Your task to perform on an android device: Play the last video I watched on Youtube Image 0: 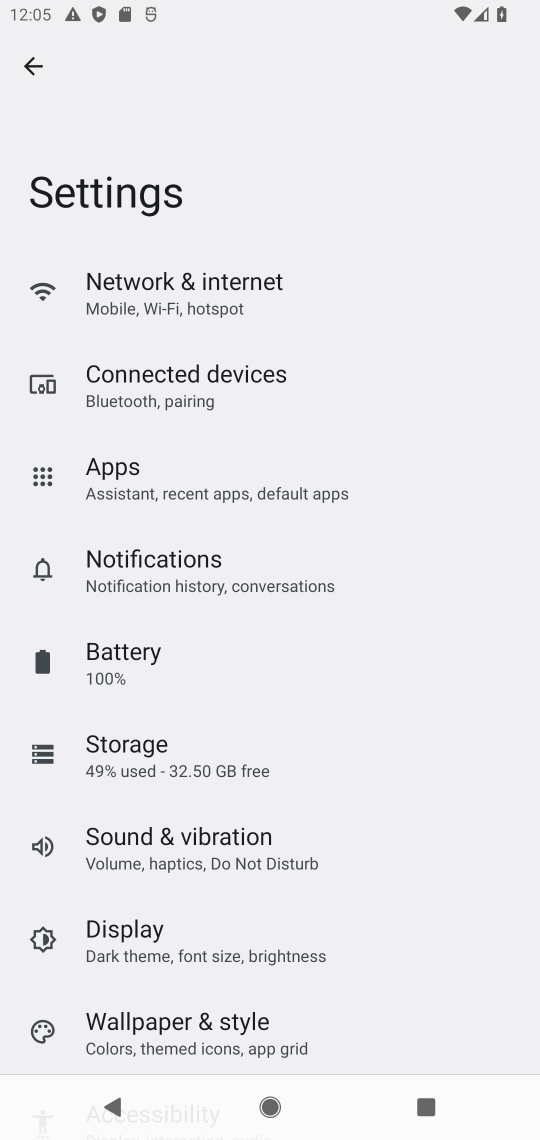
Step 0: drag from (282, 1004) to (287, 615)
Your task to perform on an android device: Play the last video I watched on Youtube Image 1: 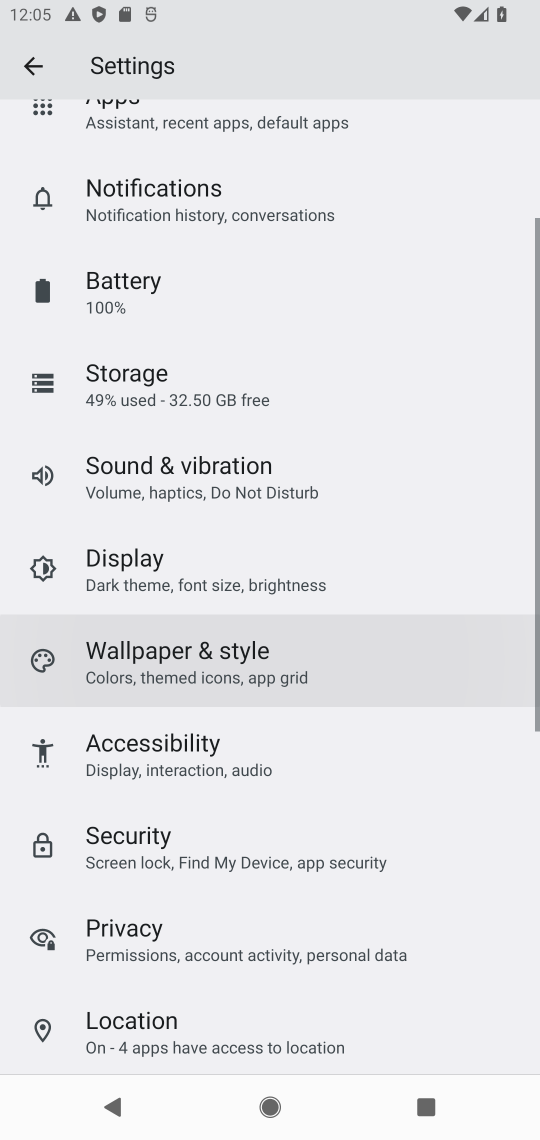
Step 1: drag from (279, 540) to (159, 1136)
Your task to perform on an android device: Play the last video I watched on Youtube Image 2: 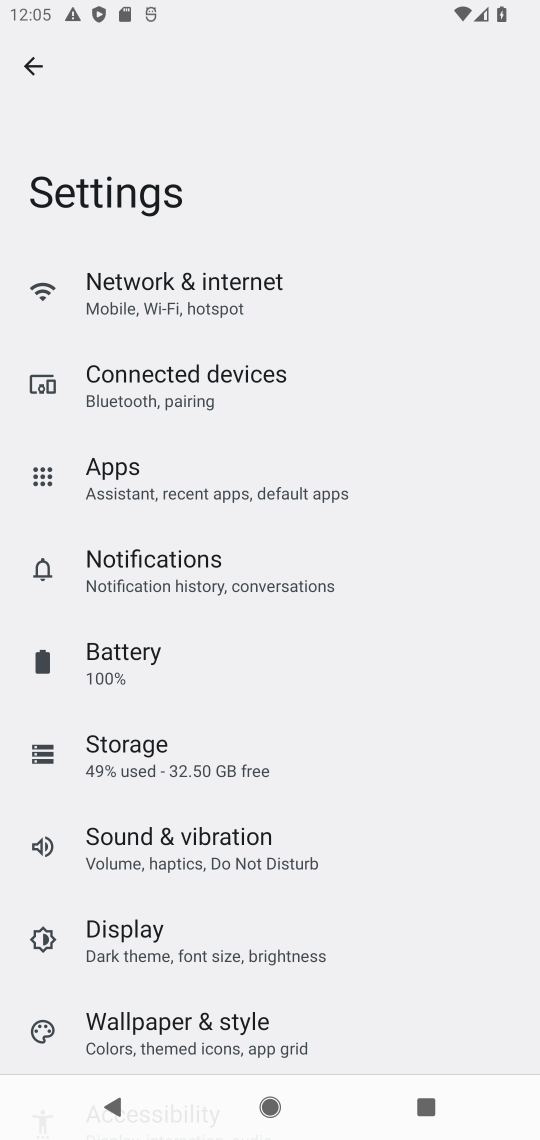
Step 2: drag from (261, 1000) to (302, 741)
Your task to perform on an android device: Play the last video I watched on Youtube Image 3: 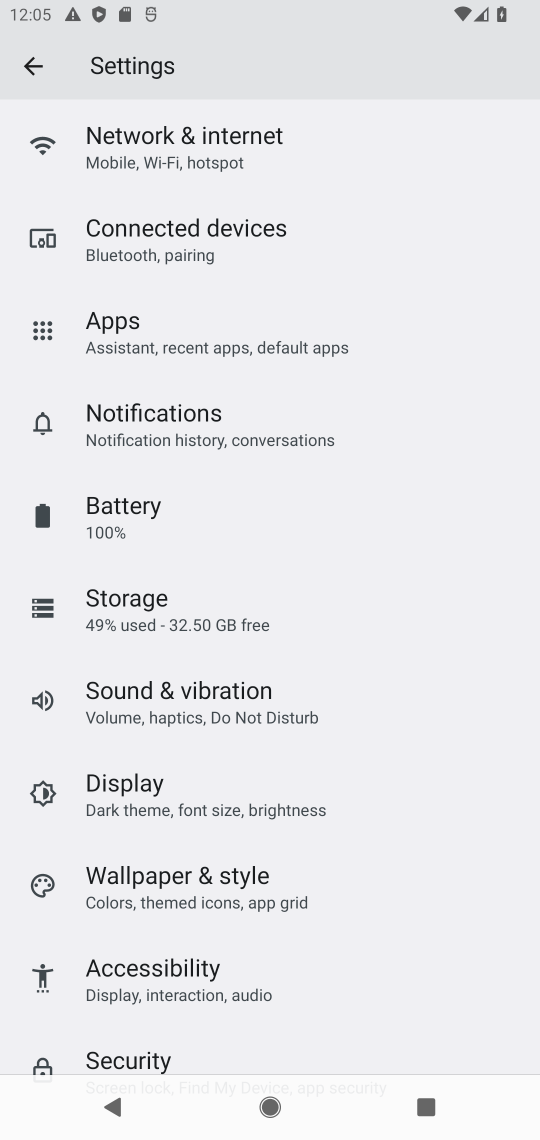
Step 3: drag from (250, 862) to (318, 623)
Your task to perform on an android device: Play the last video I watched on Youtube Image 4: 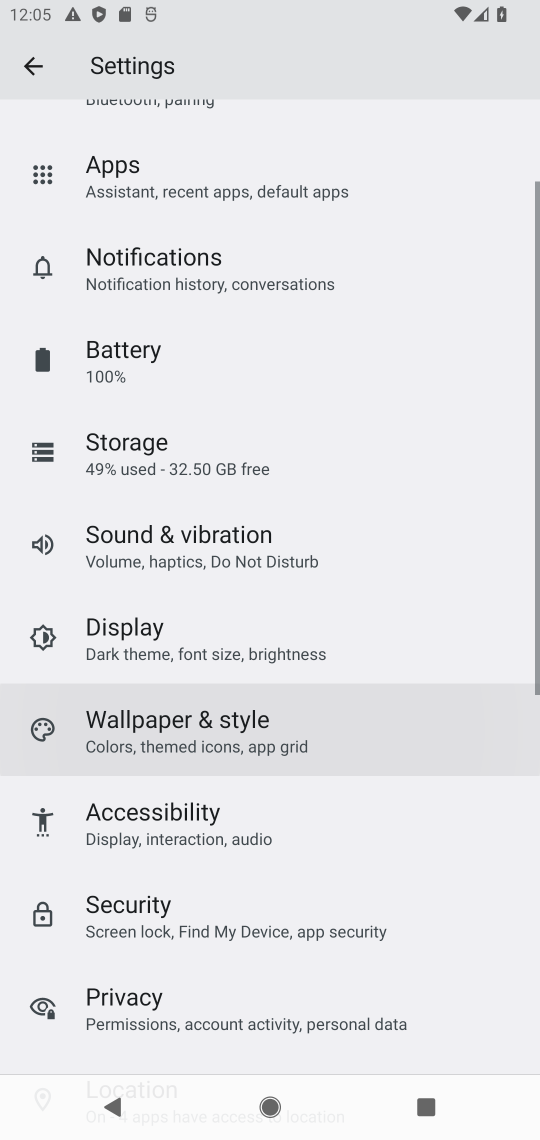
Step 4: drag from (297, 558) to (474, 689)
Your task to perform on an android device: Play the last video I watched on Youtube Image 5: 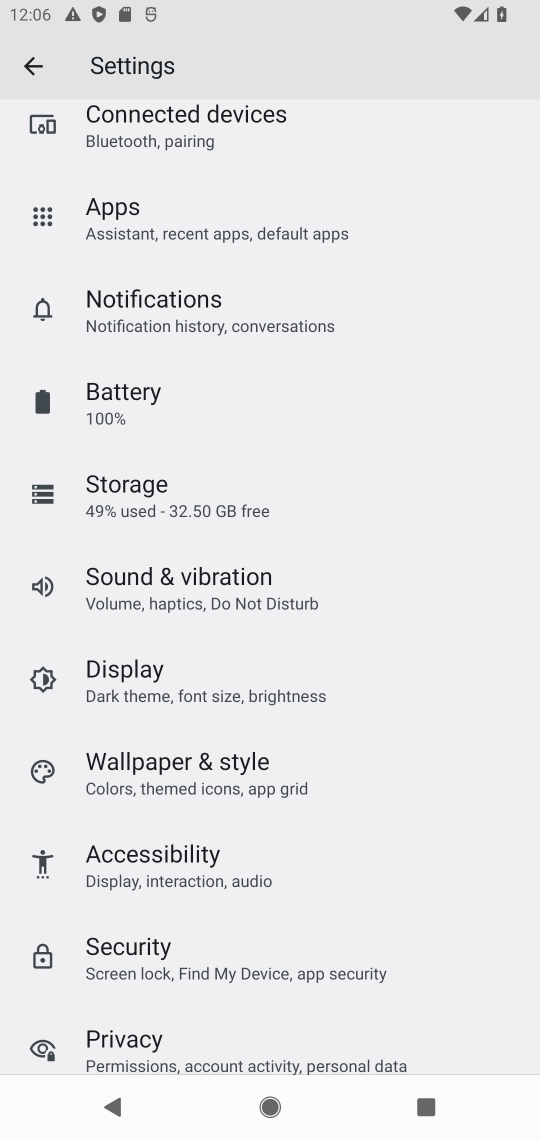
Step 5: press home button
Your task to perform on an android device: Play the last video I watched on Youtube Image 6: 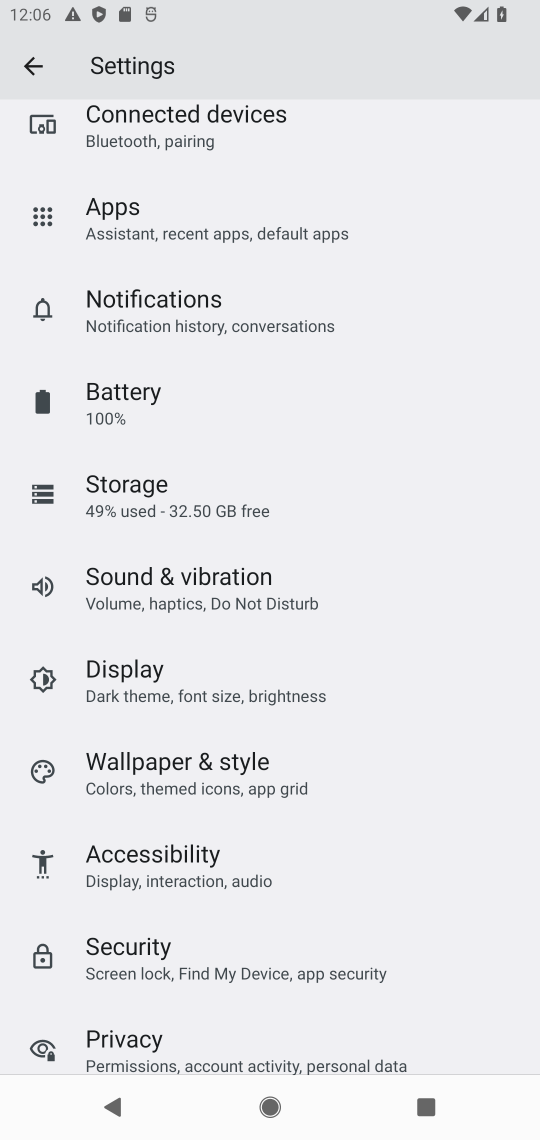
Step 6: press home button
Your task to perform on an android device: Play the last video I watched on Youtube Image 7: 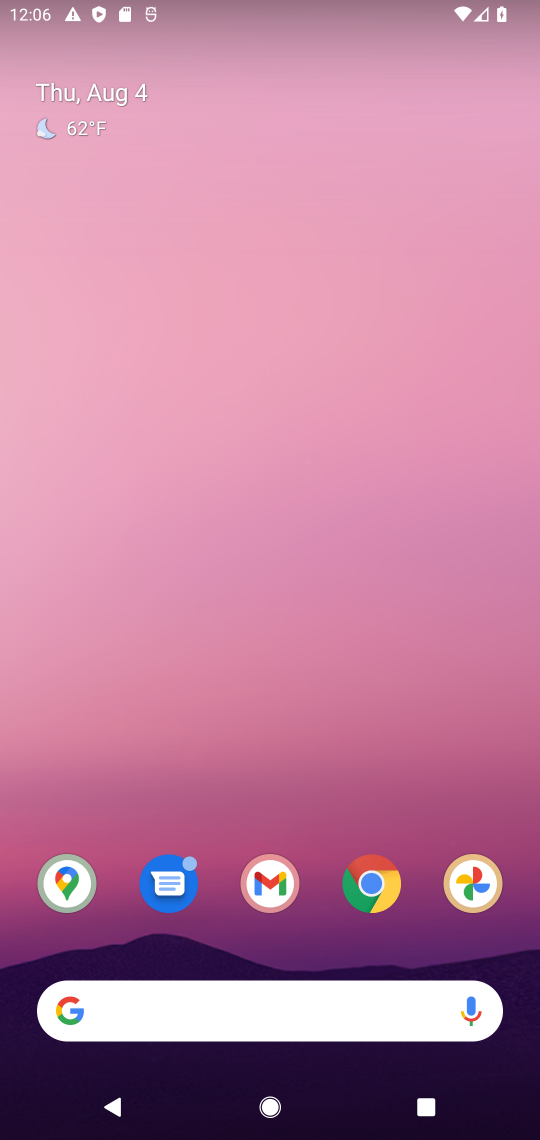
Step 7: drag from (352, 910) to (381, 518)
Your task to perform on an android device: Play the last video I watched on Youtube Image 8: 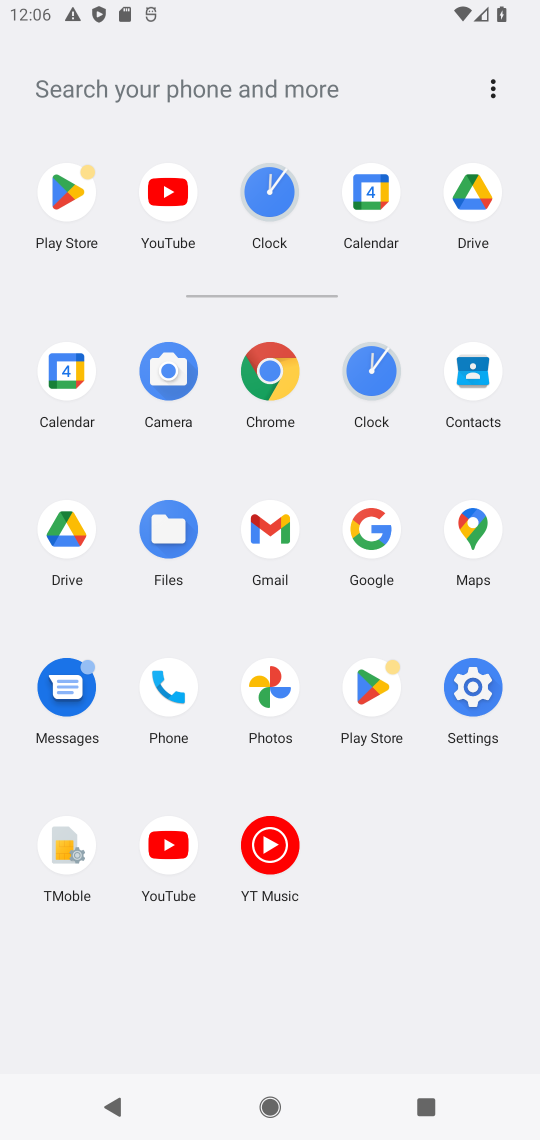
Step 8: click (193, 192)
Your task to perform on an android device: Play the last video I watched on Youtube Image 9: 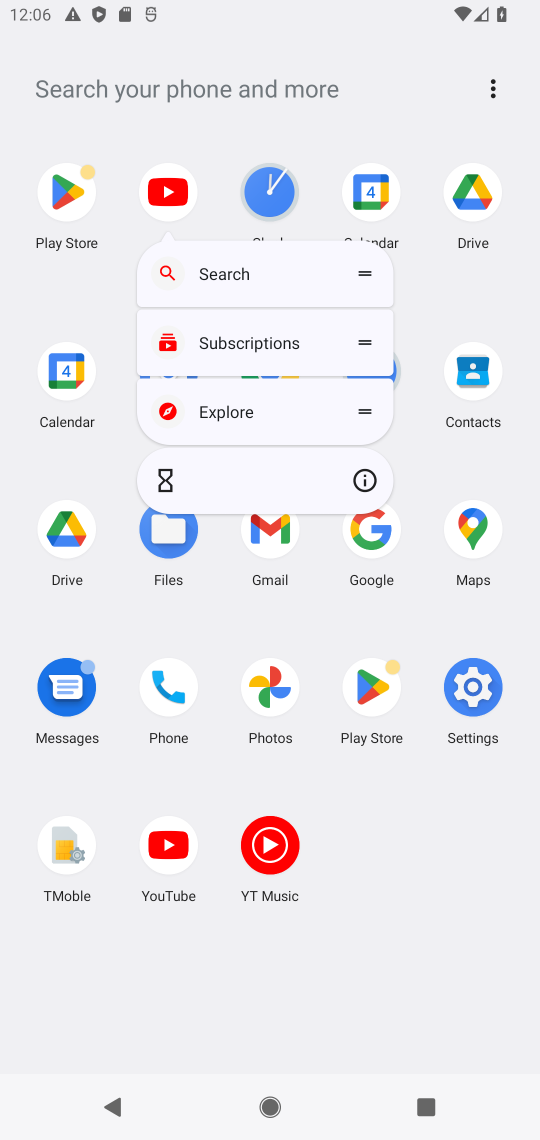
Step 9: click (371, 483)
Your task to perform on an android device: Play the last video I watched on Youtube Image 10: 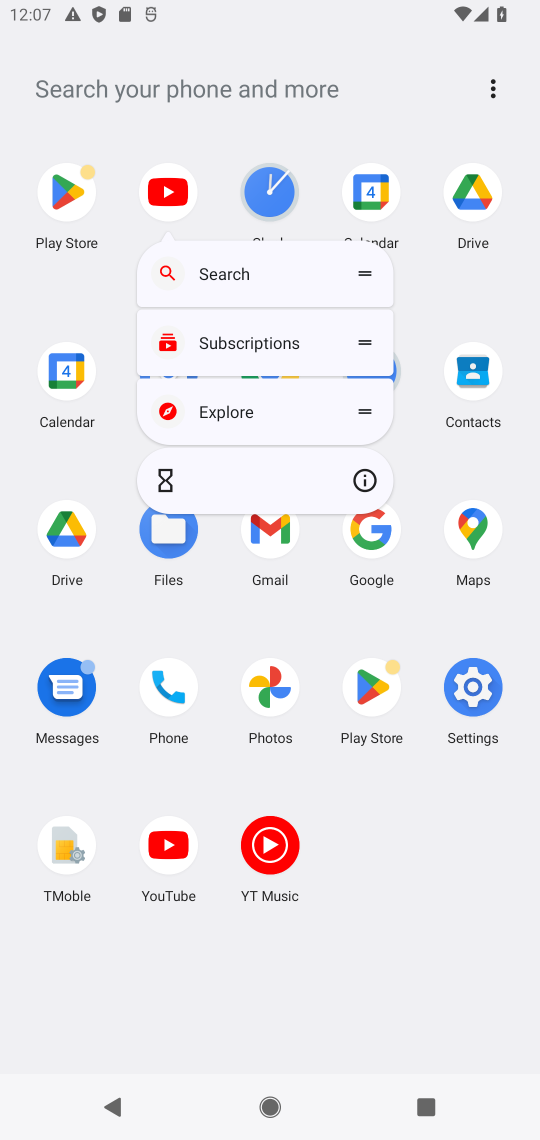
Step 10: click (377, 476)
Your task to perform on an android device: Play the last video I watched on Youtube Image 11: 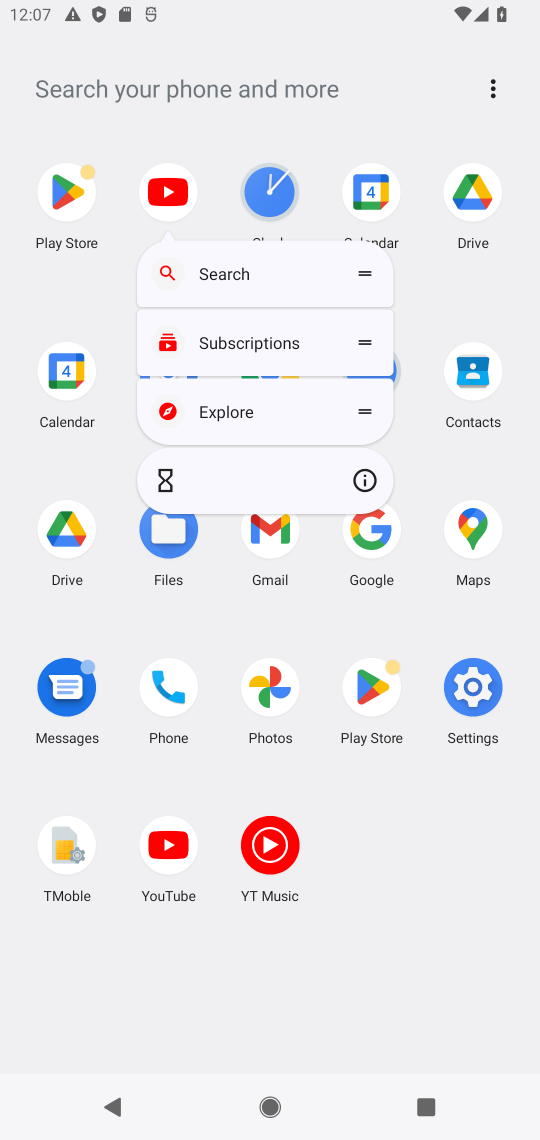
Step 11: click (365, 483)
Your task to perform on an android device: Play the last video I watched on Youtube Image 12: 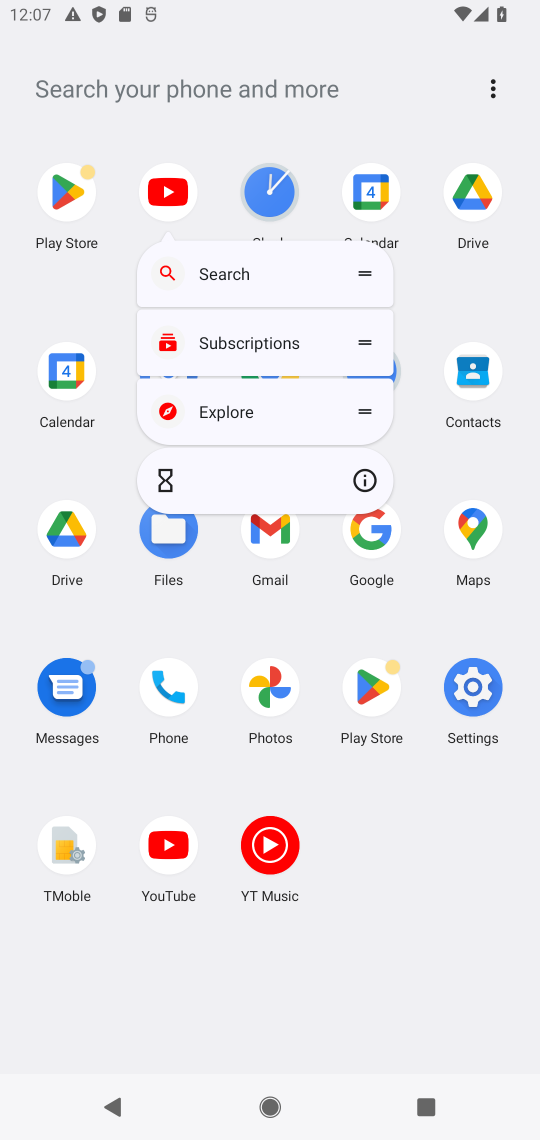
Step 12: click (371, 484)
Your task to perform on an android device: Play the last video I watched on Youtube Image 13: 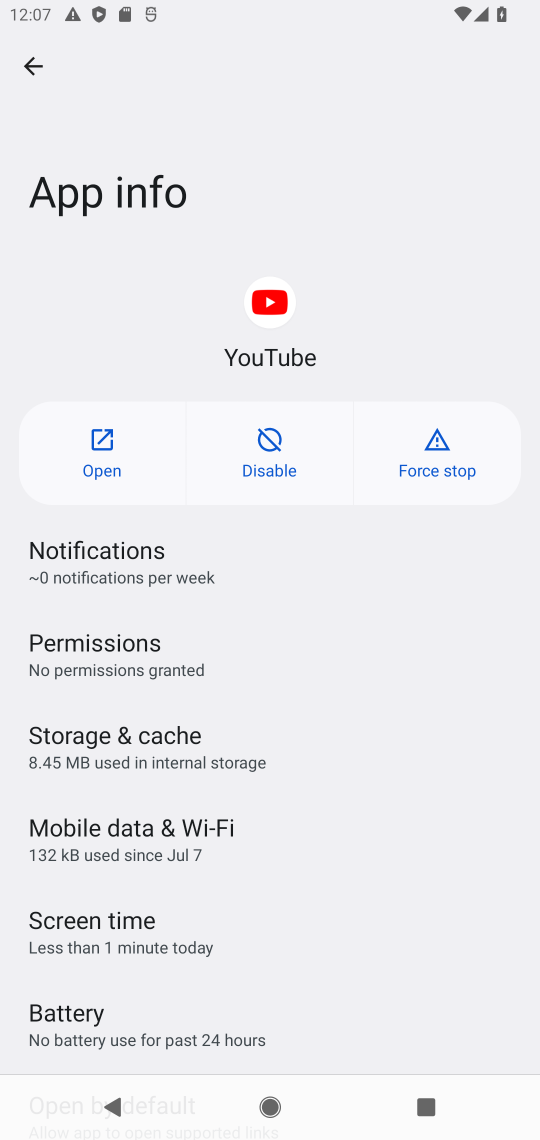
Step 13: click (93, 445)
Your task to perform on an android device: Play the last video I watched on Youtube Image 14: 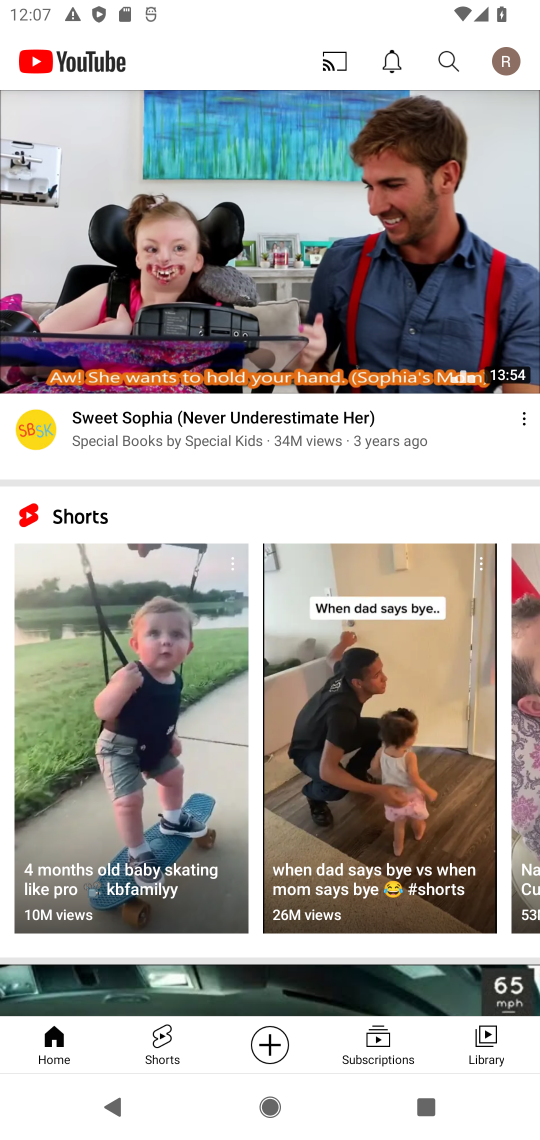
Step 14: click (512, 1048)
Your task to perform on an android device: Play the last video I watched on Youtube Image 15: 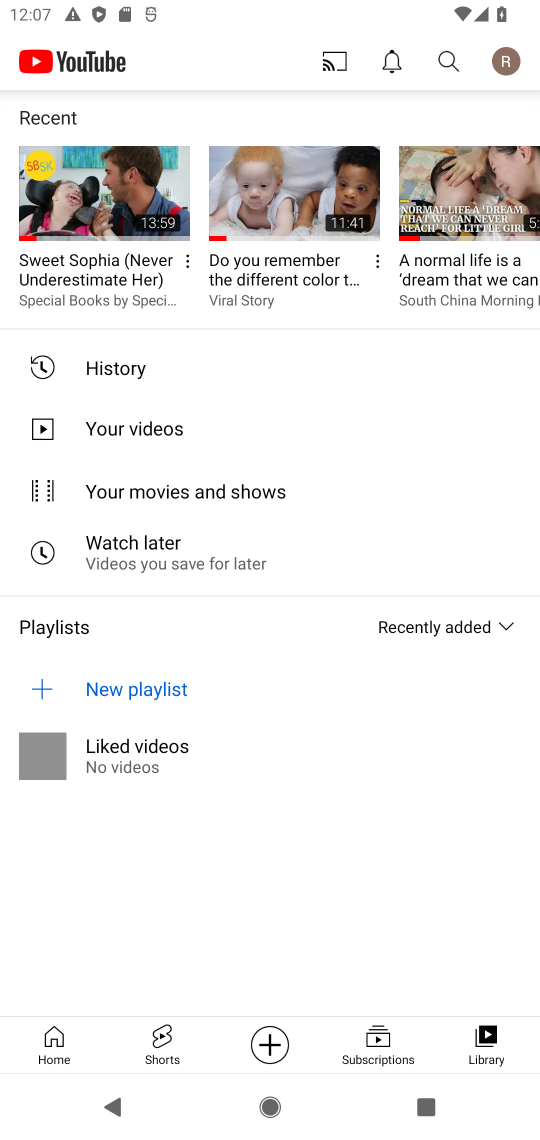
Step 15: drag from (285, 862) to (335, 600)
Your task to perform on an android device: Play the last video I watched on Youtube Image 16: 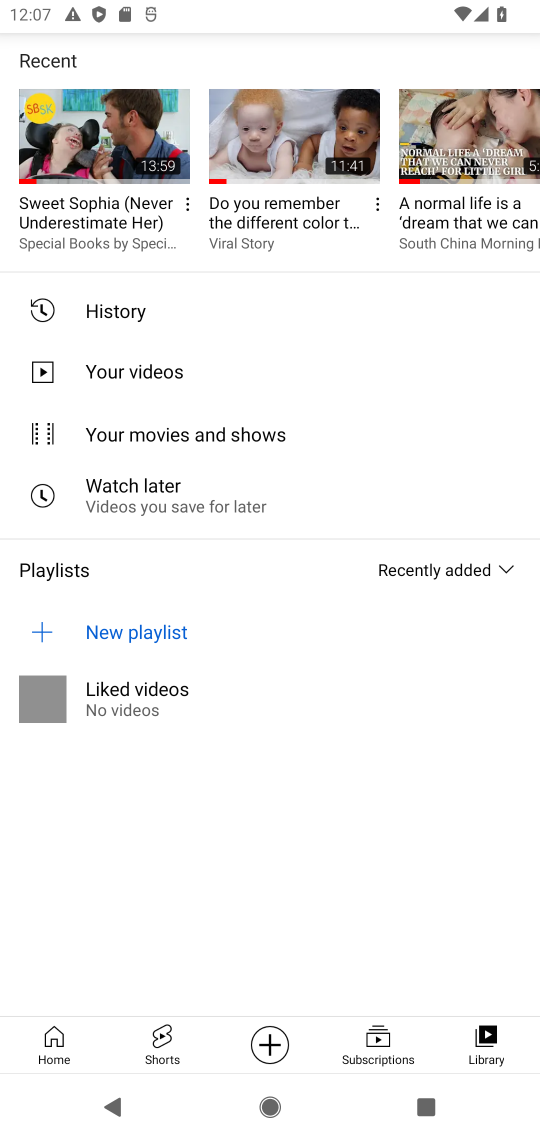
Step 16: drag from (286, 941) to (275, 653)
Your task to perform on an android device: Play the last video I watched on Youtube Image 17: 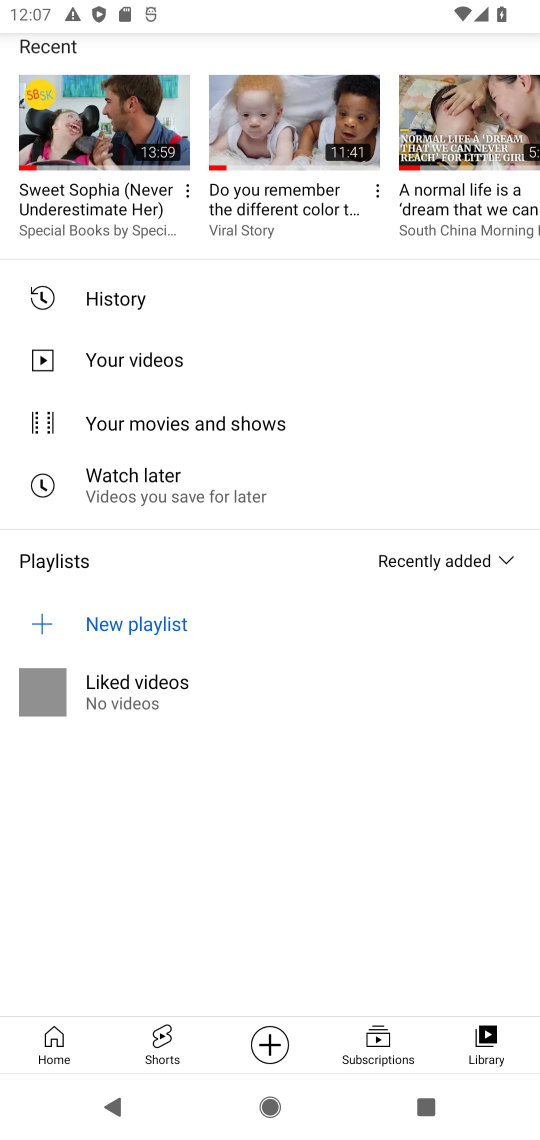
Step 17: drag from (385, 384) to (519, 557)
Your task to perform on an android device: Play the last video I watched on Youtube Image 18: 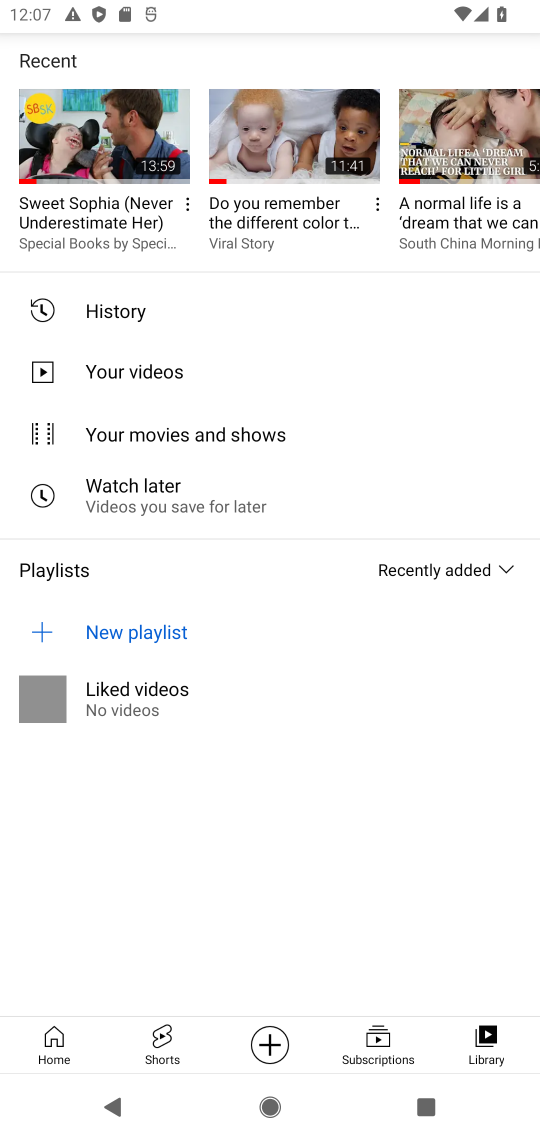
Step 18: click (148, 149)
Your task to perform on an android device: Play the last video I watched on Youtube Image 19: 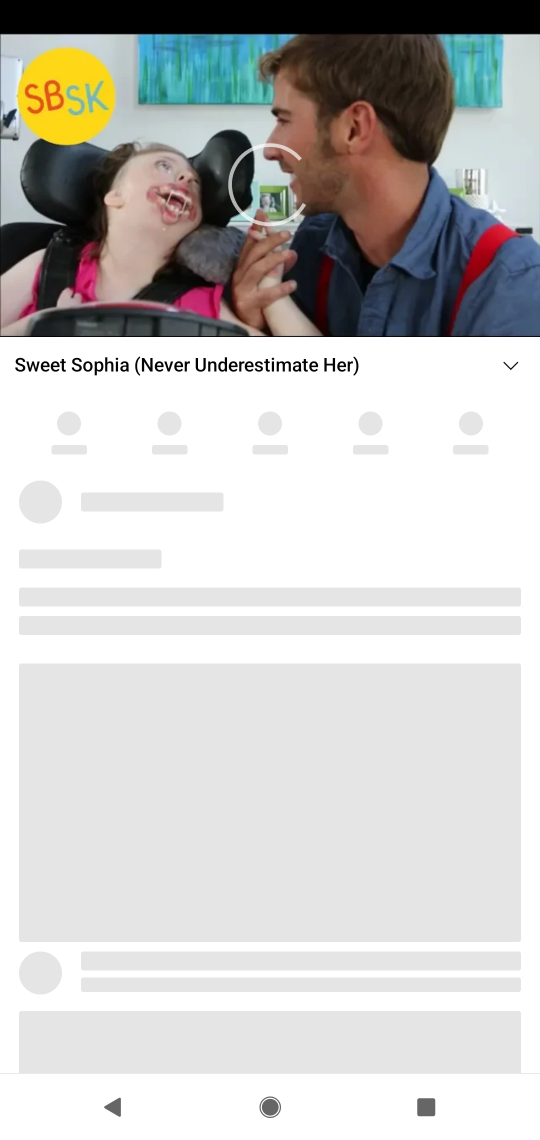
Step 19: task complete